Your task to perform on an android device: set default search engine in the chrome app Image 0: 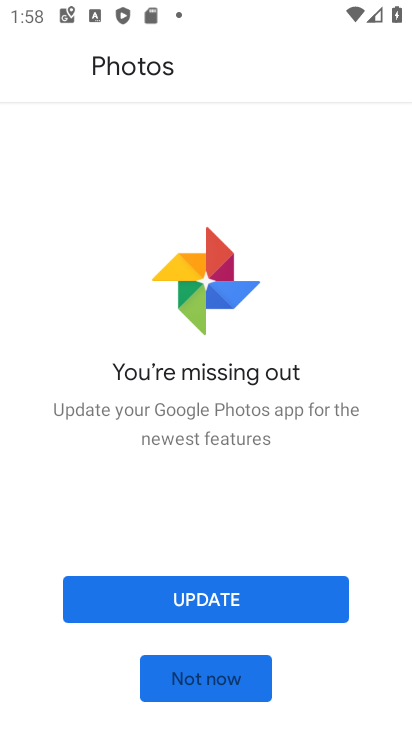
Step 0: press home button
Your task to perform on an android device: set default search engine in the chrome app Image 1: 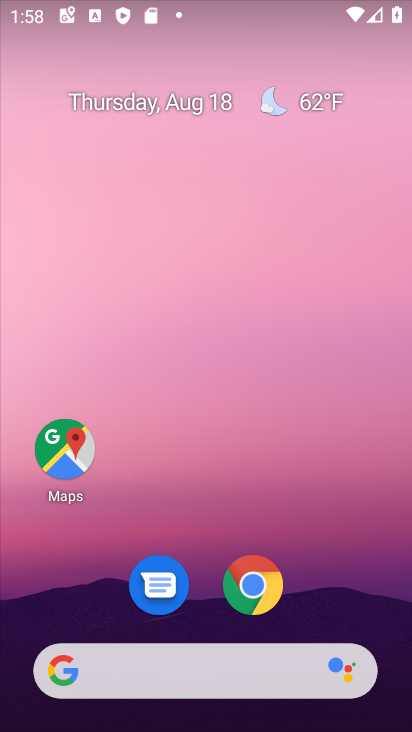
Step 1: click (316, 575)
Your task to perform on an android device: set default search engine in the chrome app Image 2: 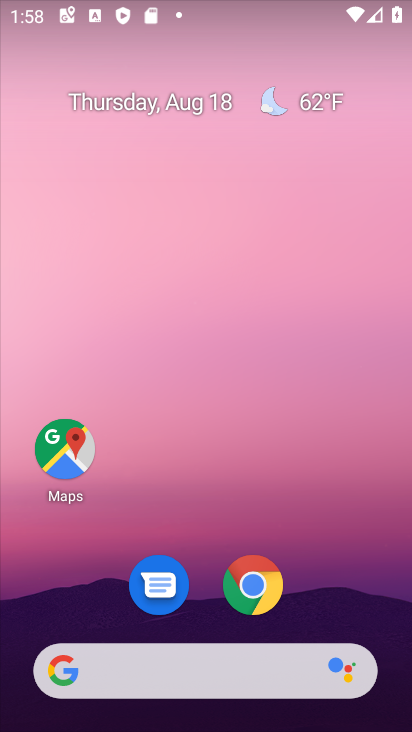
Step 2: click (251, 581)
Your task to perform on an android device: set default search engine in the chrome app Image 3: 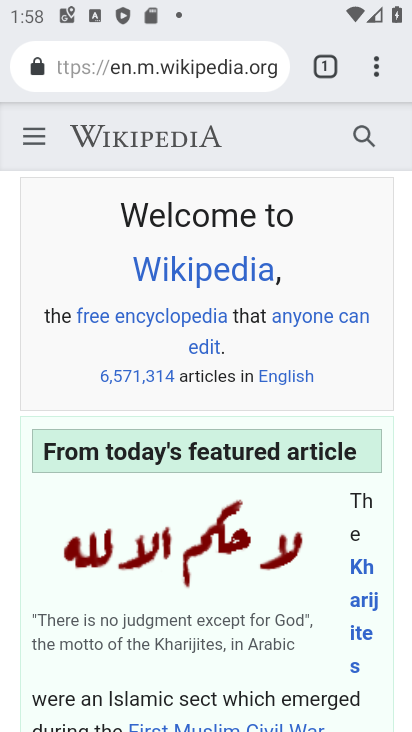
Step 3: click (375, 69)
Your task to perform on an android device: set default search engine in the chrome app Image 4: 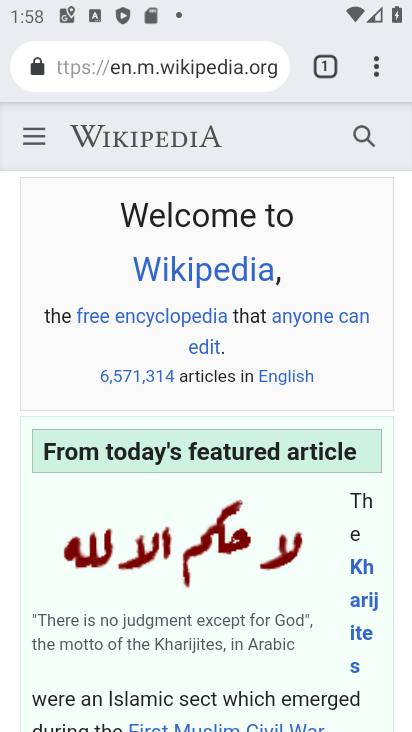
Step 4: press back button
Your task to perform on an android device: set default search engine in the chrome app Image 5: 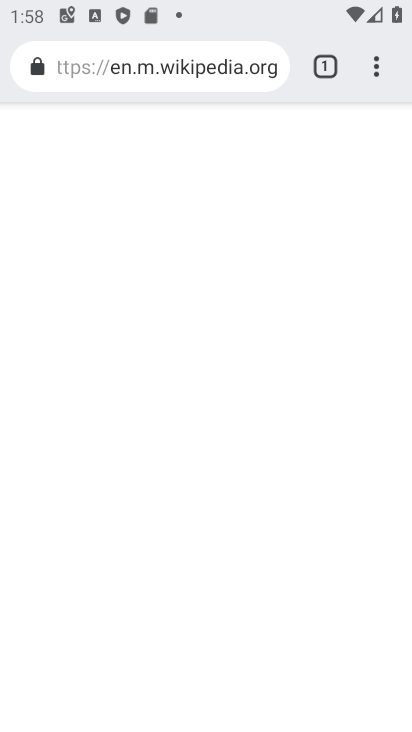
Step 5: press back button
Your task to perform on an android device: set default search engine in the chrome app Image 6: 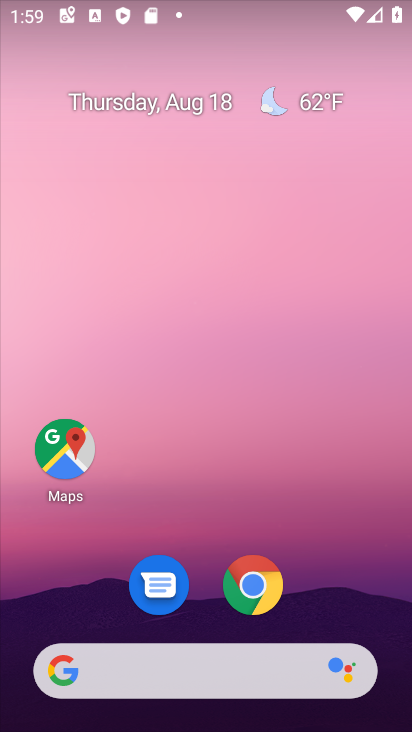
Step 6: click (252, 580)
Your task to perform on an android device: set default search engine in the chrome app Image 7: 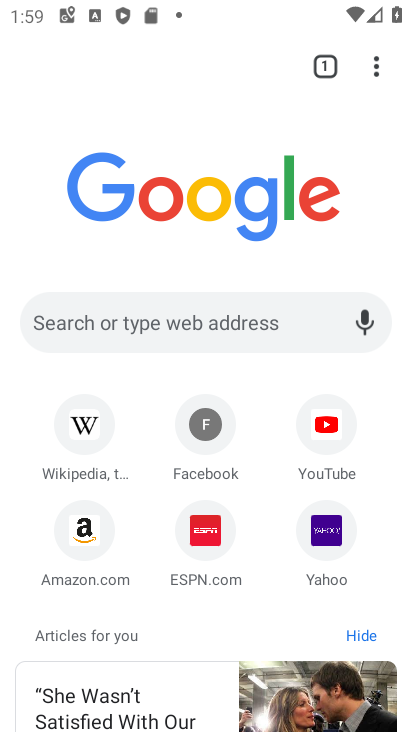
Step 7: click (373, 72)
Your task to perform on an android device: set default search engine in the chrome app Image 8: 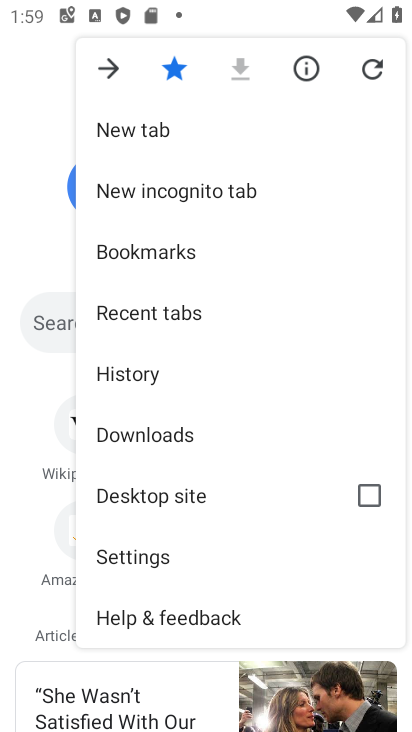
Step 8: click (183, 555)
Your task to perform on an android device: set default search engine in the chrome app Image 9: 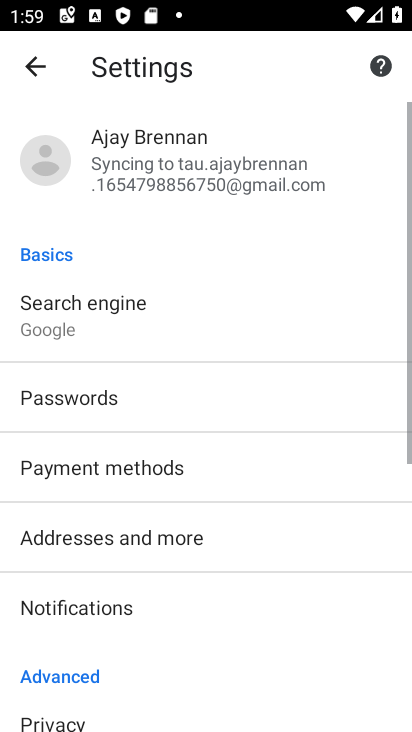
Step 9: click (172, 314)
Your task to perform on an android device: set default search engine in the chrome app Image 10: 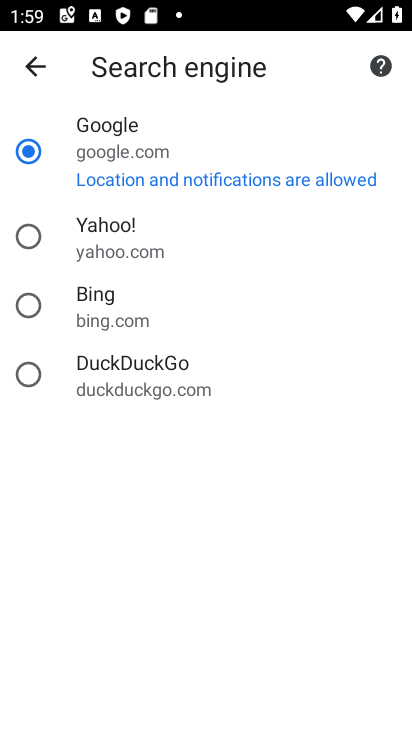
Step 10: task complete